Your task to perform on an android device: change the upload size in google photos Image 0: 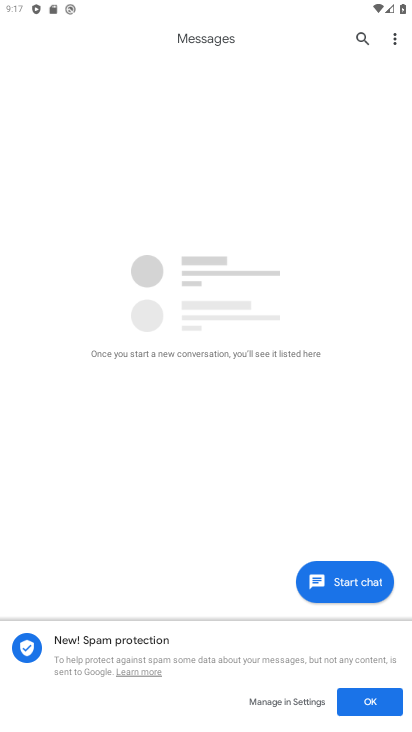
Step 0: press home button
Your task to perform on an android device: change the upload size in google photos Image 1: 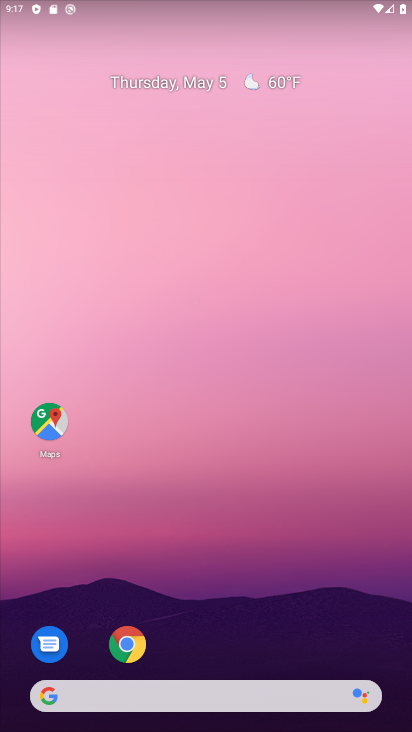
Step 1: drag from (374, 624) to (397, 138)
Your task to perform on an android device: change the upload size in google photos Image 2: 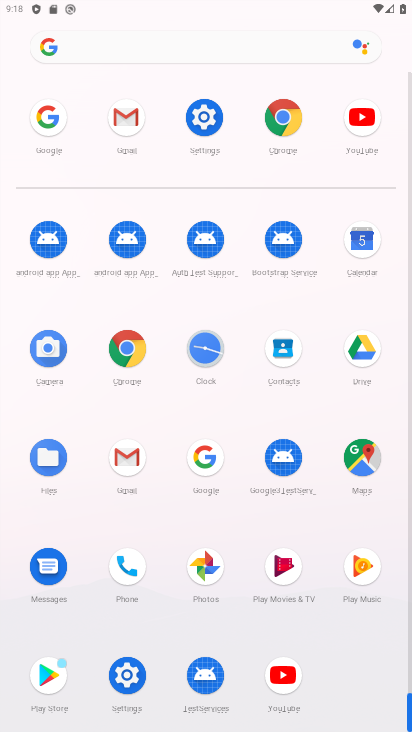
Step 2: drag from (364, 635) to (390, 124)
Your task to perform on an android device: change the upload size in google photos Image 3: 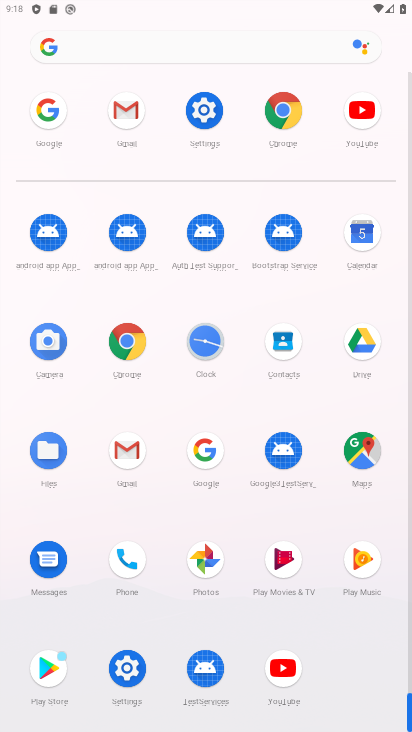
Step 3: click (200, 567)
Your task to perform on an android device: change the upload size in google photos Image 4: 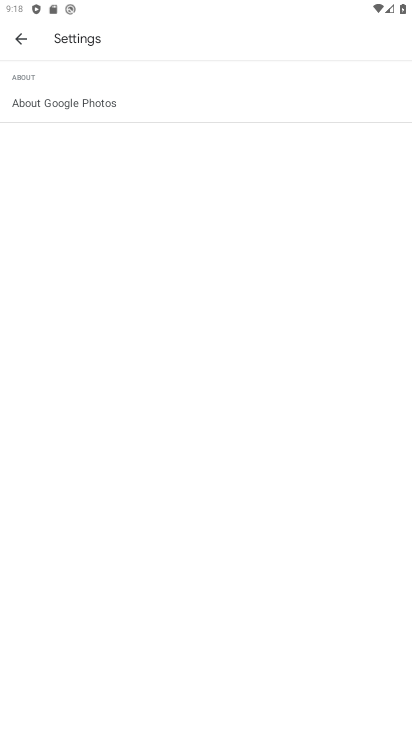
Step 4: click (31, 50)
Your task to perform on an android device: change the upload size in google photos Image 5: 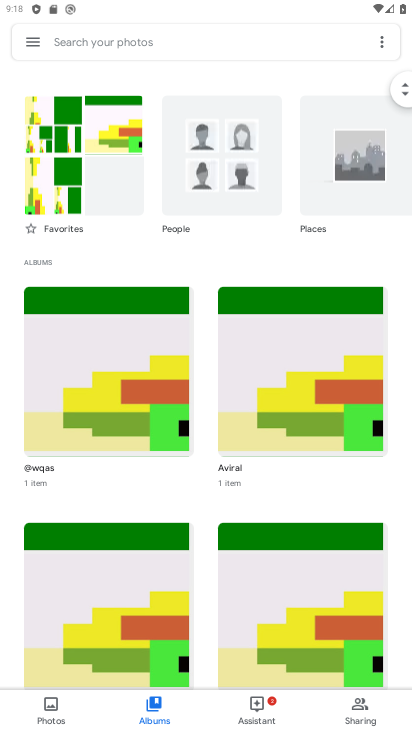
Step 5: click (29, 46)
Your task to perform on an android device: change the upload size in google photos Image 6: 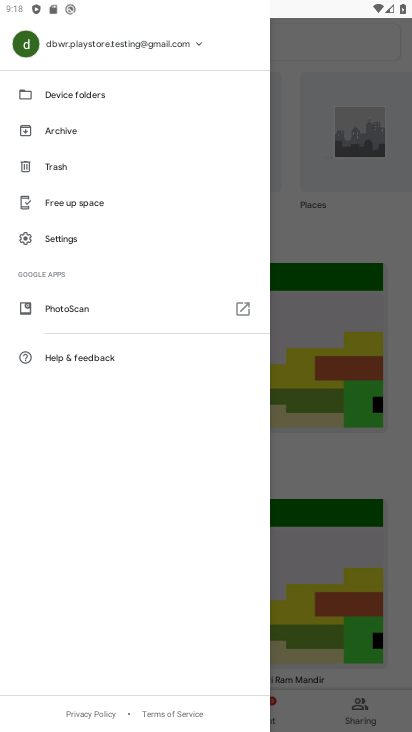
Step 6: click (59, 244)
Your task to perform on an android device: change the upload size in google photos Image 7: 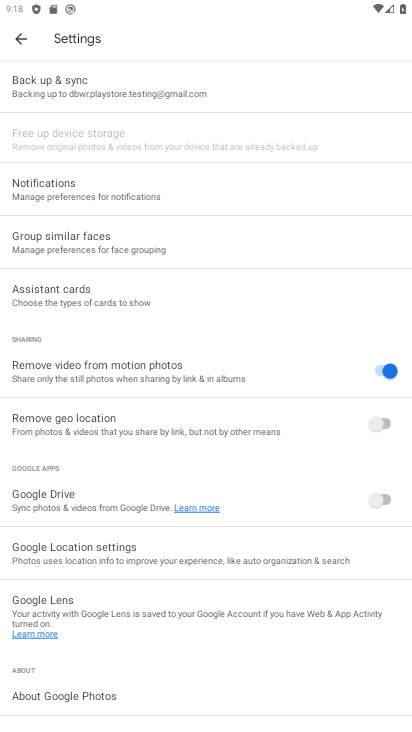
Step 7: click (83, 85)
Your task to perform on an android device: change the upload size in google photos Image 8: 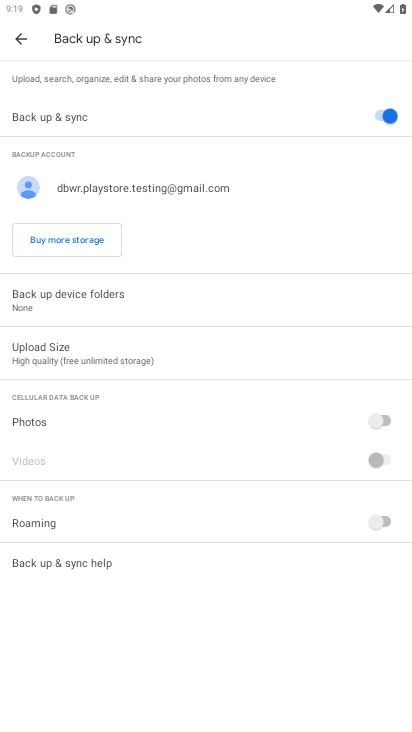
Step 8: click (67, 361)
Your task to perform on an android device: change the upload size in google photos Image 9: 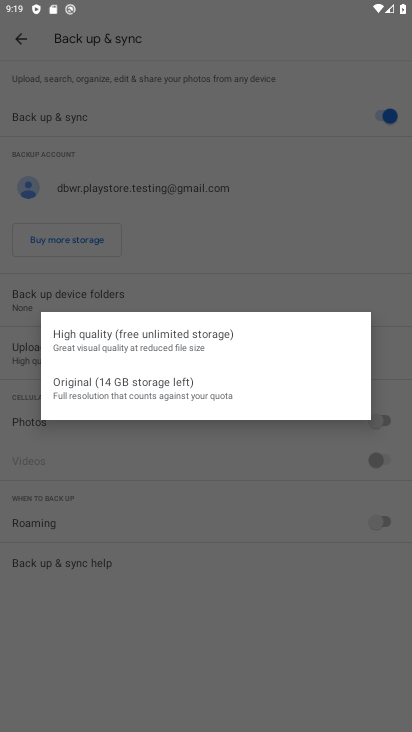
Step 9: click (121, 398)
Your task to perform on an android device: change the upload size in google photos Image 10: 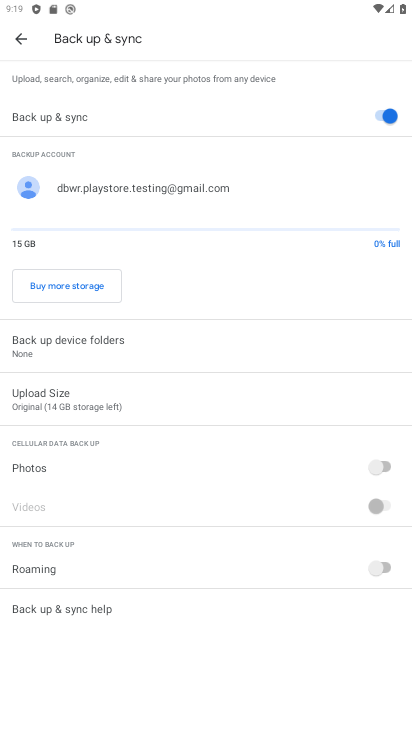
Step 10: task complete